Your task to perform on an android device: Open Android settings Image 0: 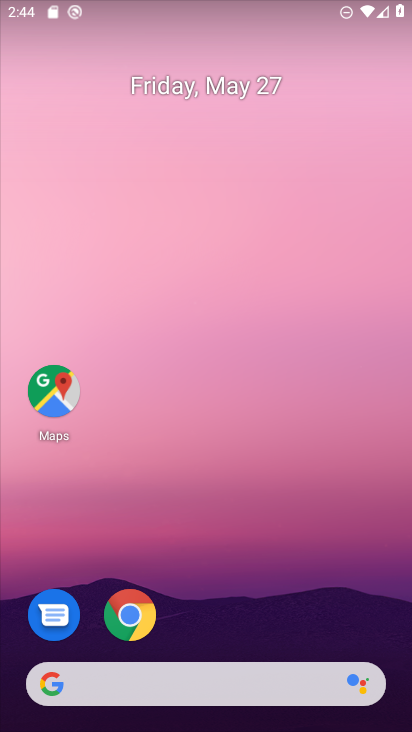
Step 0: drag from (212, 370) to (94, 7)
Your task to perform on an android device: Open Android settings Image 1: 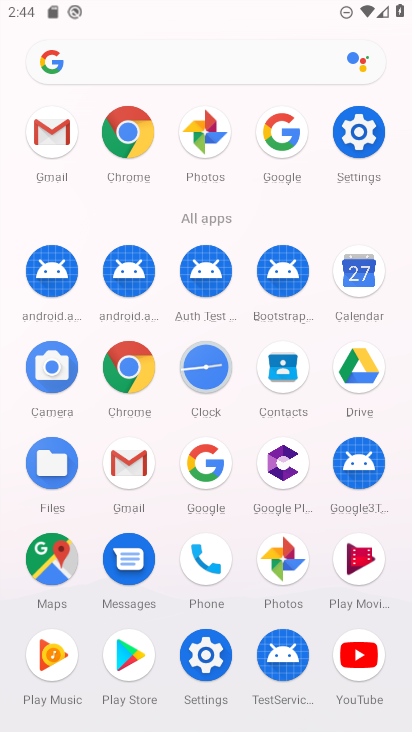
Step 1: click (365, 145)
Your task to perform on an android device: Open Android settings Image 2: 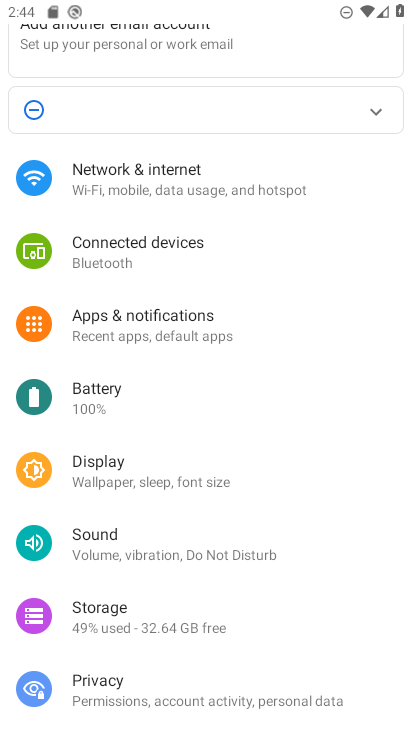
Step 2: drag from (225, 618) to (204, 90)
Your task to perform on an android device: Open Android settings Image 3: 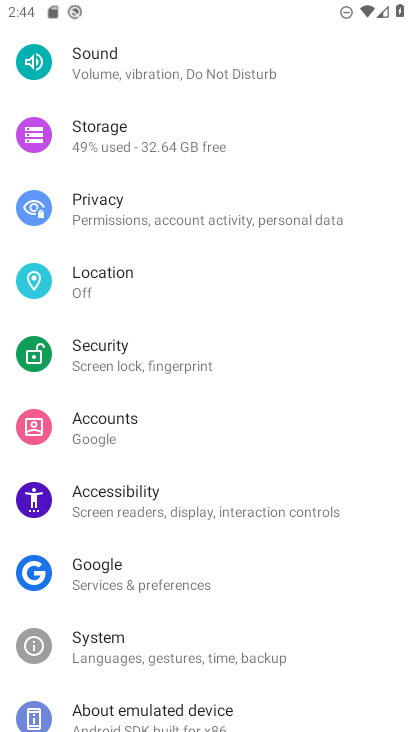
Step 3: drag from (216, 584) to (201, 150)
Your task to perform on an android device: Open Android settings Image 4: 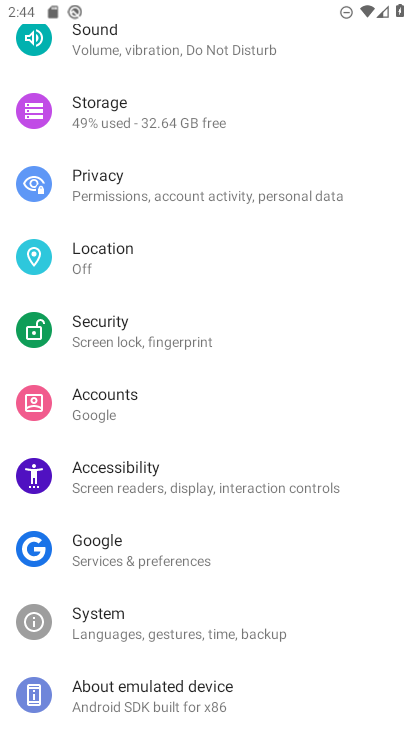
Step 4: click (211, 694)
Your task to perform on an android device: Open Android settings Image 5: 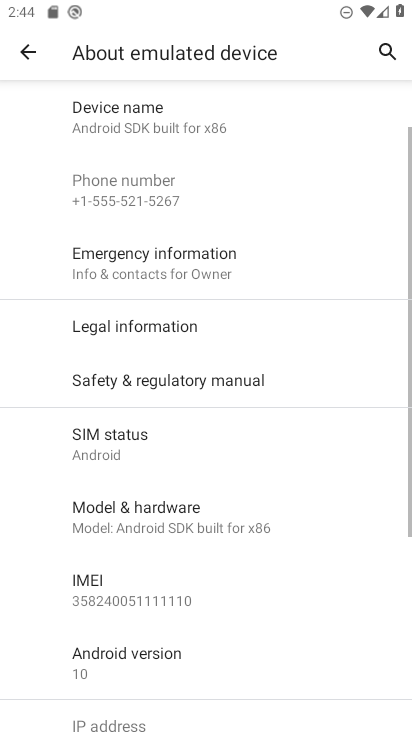
Step 5: drag from (221, 663) to (183, 141)
Your task to perform on an android device: Open Android settings Image 6: 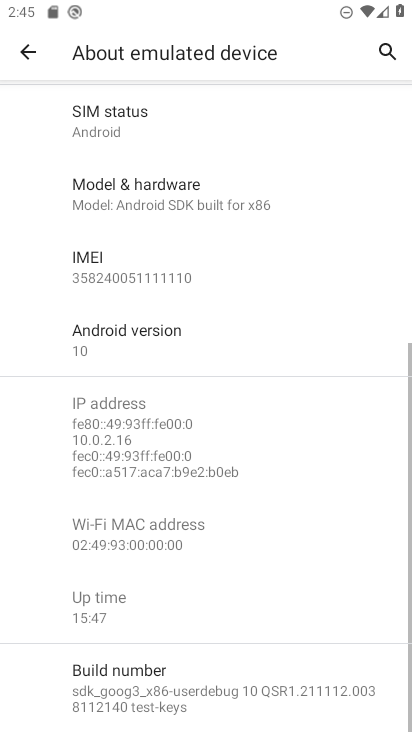
Step 6: click (142, 353)
Your task to perform on an android device: Open Android settings Image 7: 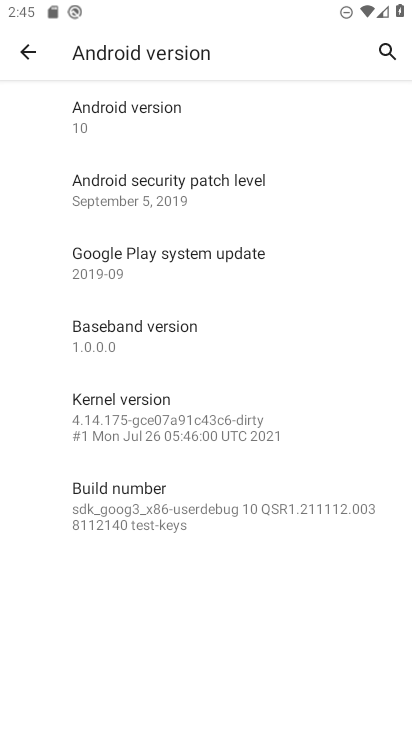
Step 7: task complete